Your task to perform on an android device: set the timer Image 0: 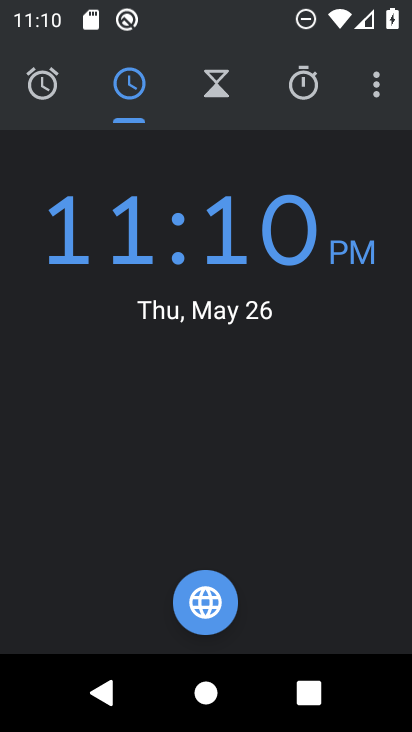
Step 0: press home button
Your task to perform on an android device: set the timer Image 1: 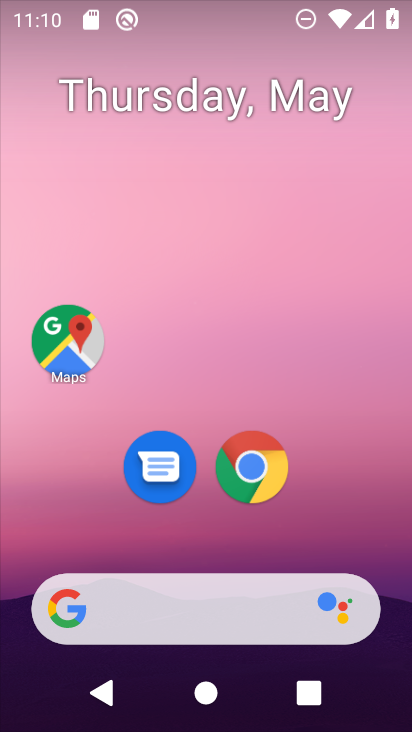
Step 1: click (142, 170)
Your task to perform on an android device: set the timer Image 2: 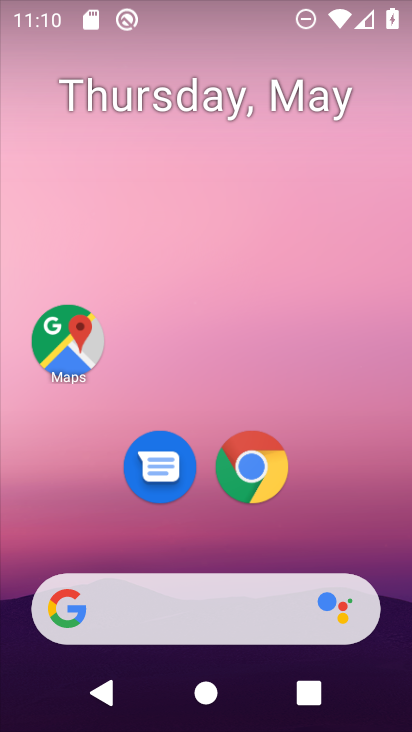
Step 2: drag from (208, 537) to (204, 147)
Your task to perform on an android device: set the timer Image 3: 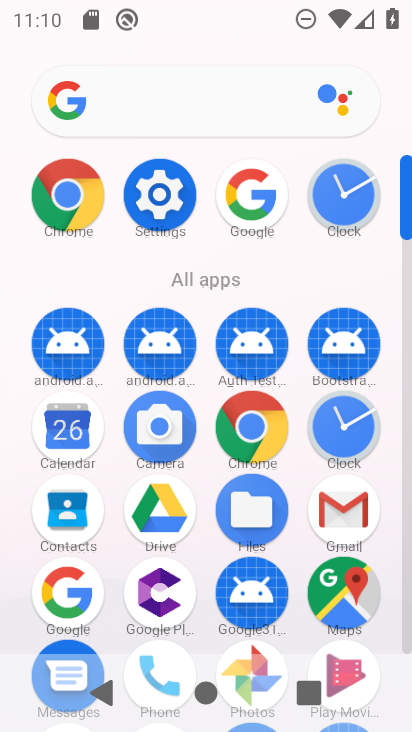
Step 3: drag from (222, 190) to (230, 60)
Your task to perform on an android device: set the timer Image 4: 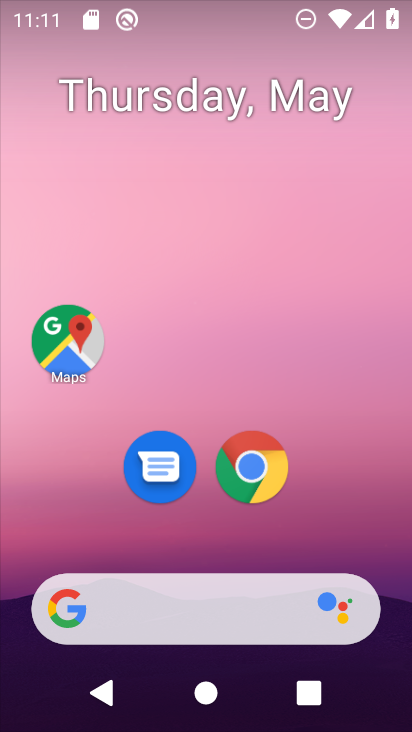
Step 4: click (330, 267)
Your task to perform on an android device: set the timer Image 5: 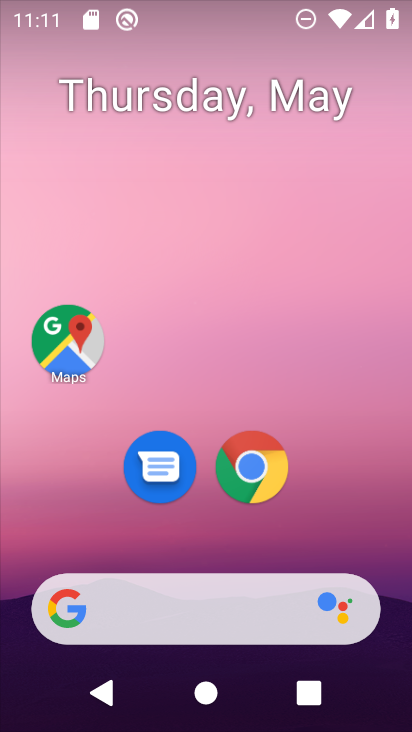
Step 5: click (253, 146)
Your task to perform on an android device: set the timer Image 6: 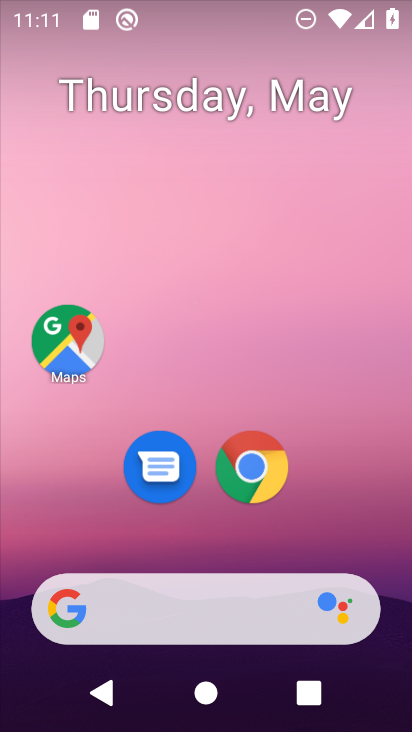
Step 6: click (234, 194)
Your task to perform on an android device: set the timer Image 7: 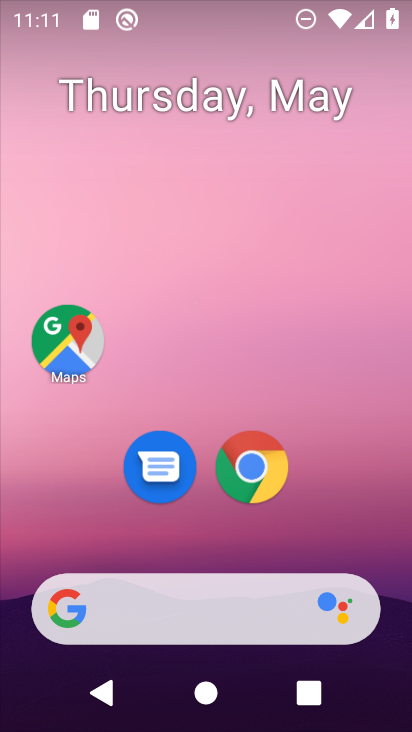
Step 7: drag from (227, 517) to (252, 158)
Your task to perform on an android device: set the timer Image 8: 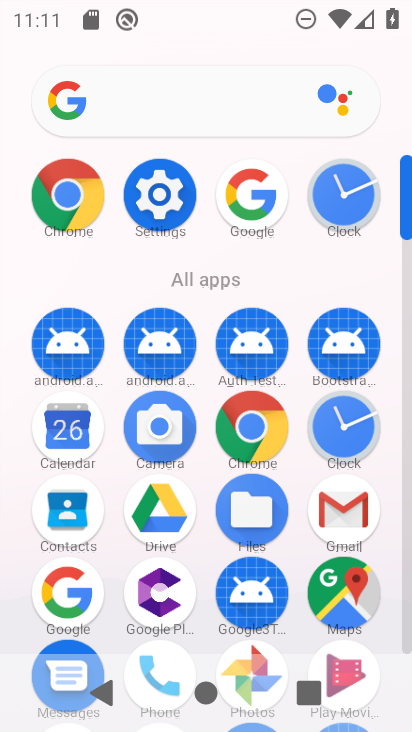
Step 8: click (334, 441)
Your task to perform on an android device: set the timer Image 9: 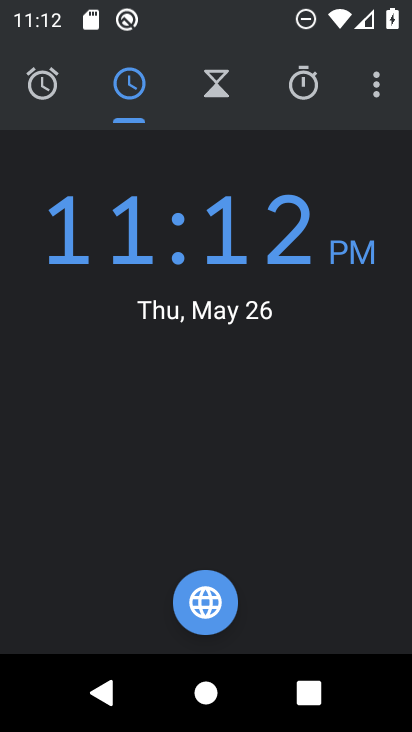
Step 9: click (314, 91)
Your task to perform on an android device: set the timer Image 10: 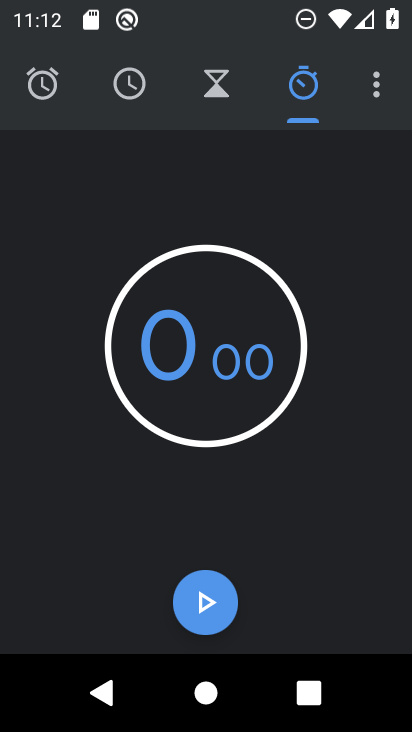
Step 10: click (224, 103)
Your task to perform on an android device: set the timer Image 11: 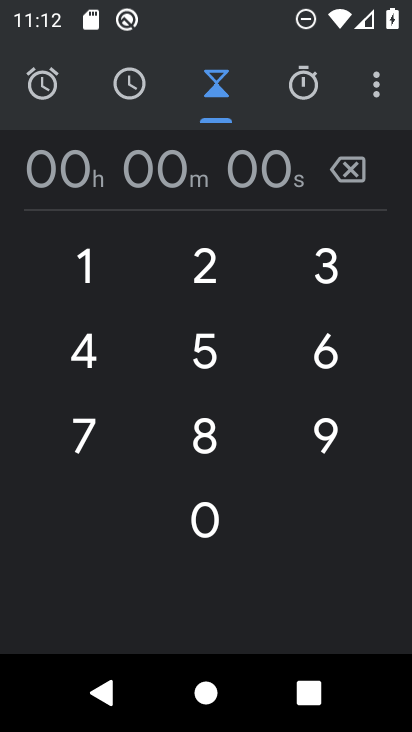
Step 11: click (225, 104)
Your task to perform on an android device: set the timer Image 12: 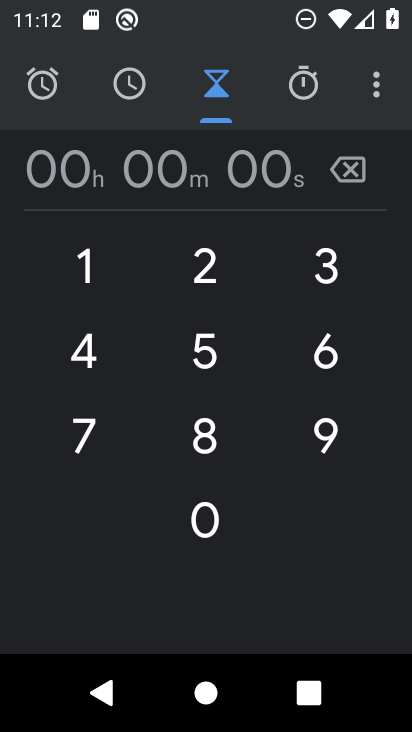
Step 12: click (200, 353)
Your task to perform on an android device: set the timer Image 13: 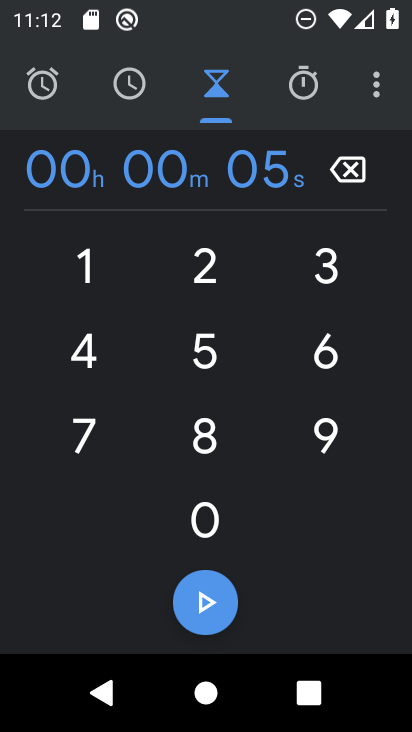
Step 13: click (333, 364)
Your task to perform on an android device: set the timer Image 14: 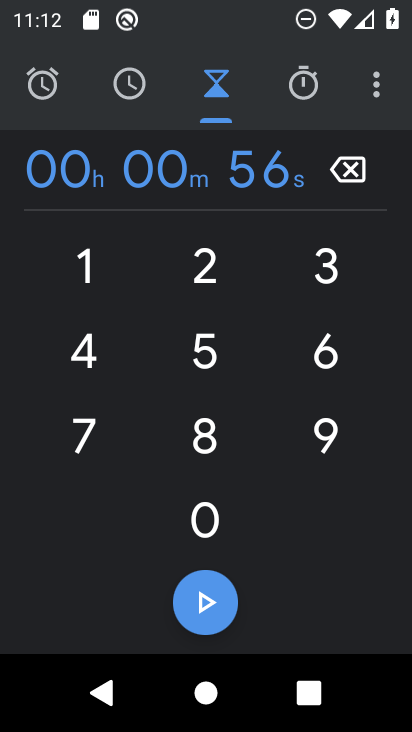
Step 14: click (333, 363)
Your task to perform on an android device: set the timer Image 15: 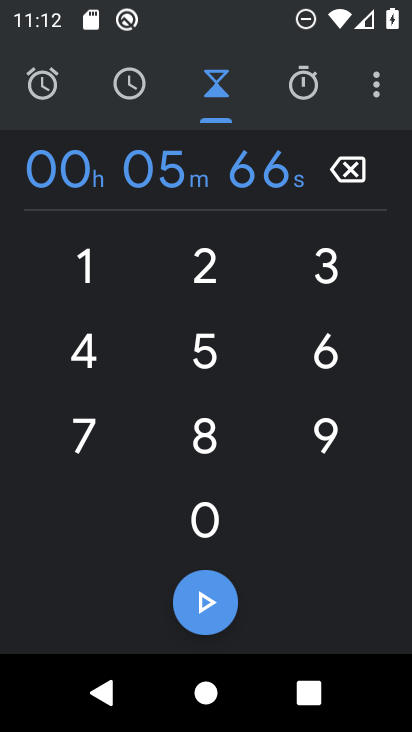
Step 15: task complete